Your task to perform on an android device: remove spam from my inbox in the gmail app Image 0: 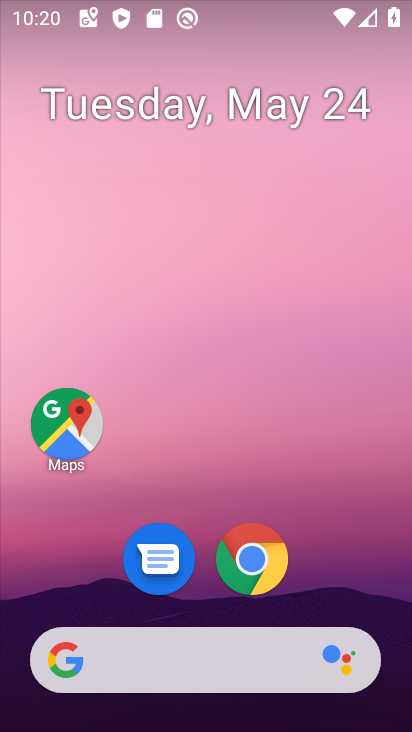
Step 0: drag from (192, 560) to (249, 221)
Your task to perform on an android device: remove spam from my inbox in the gmail app Image 1: 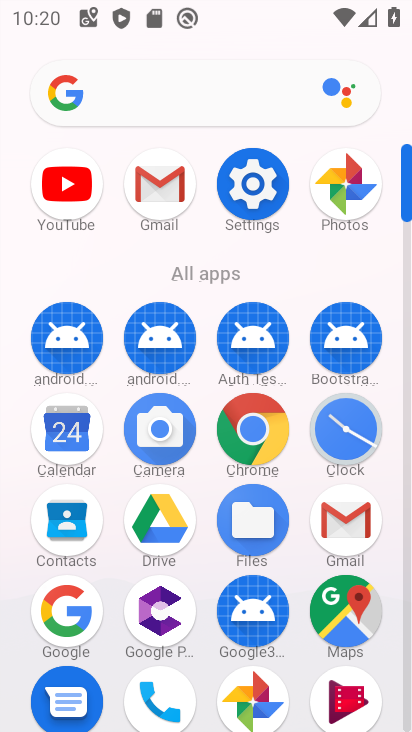
Step 1: click (158, 188)
Your task to perform on an android device: remove spam from my inbox in the gmail app Image 2: 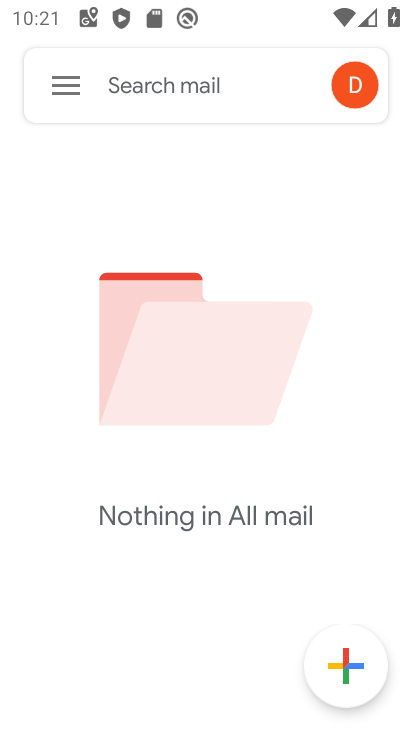
Step 2: click (55, 84)
Your task to perform on an android device: remove spam from my inbox in the gmail app Image 3: 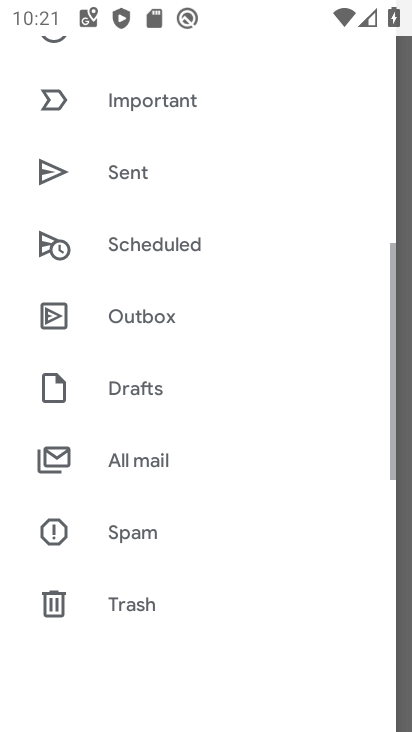
Step 3: click (123, 536)
Your task to perform on an android device: remove spam from my inbox in the gmail app Image 4: 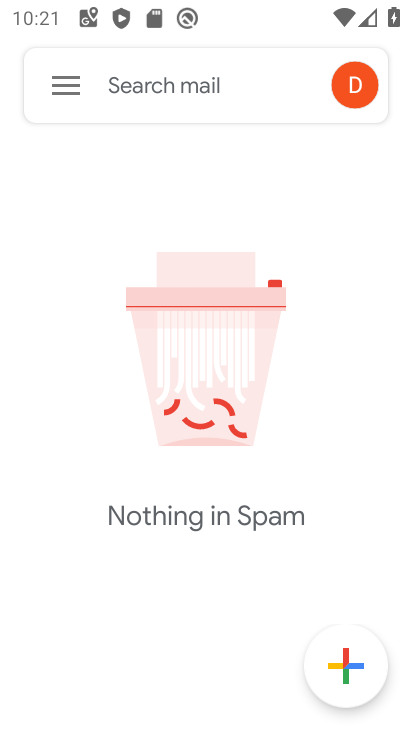
Step 4: task complete